Your task to perform on an android device: Open Amazon Image 0: 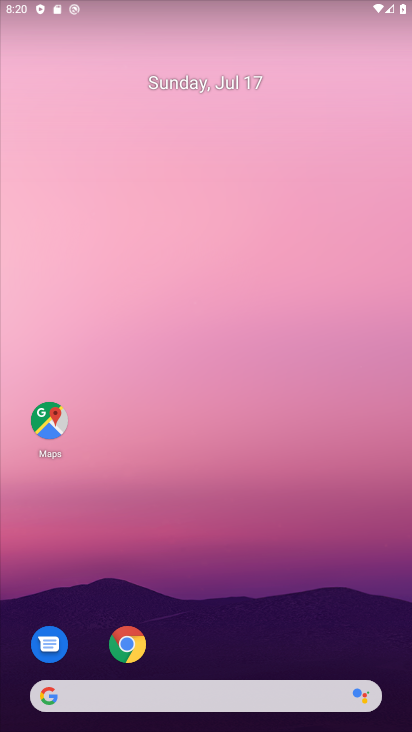
Step 0: drag from (182, 560) to (108, 110)
Your task to perform on an android device: Open Amazon Image 1: 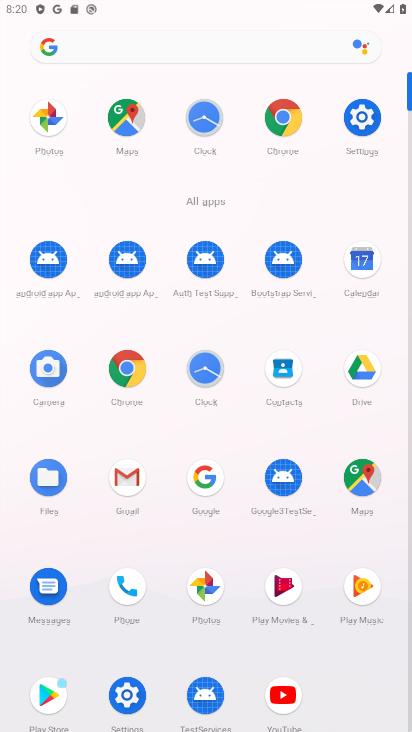
Step 1: click (277, 120)
Your task to perform on an android device: Open Amazon Image 2: 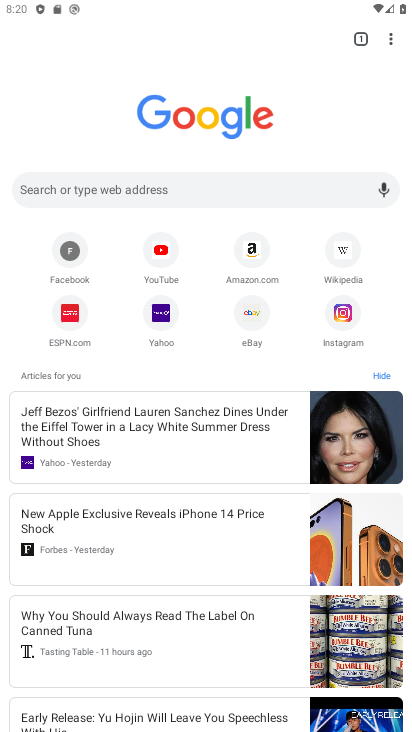
Step 2: click (252, 256)
Your task to perform on an android device: Open Amazon Image 3: 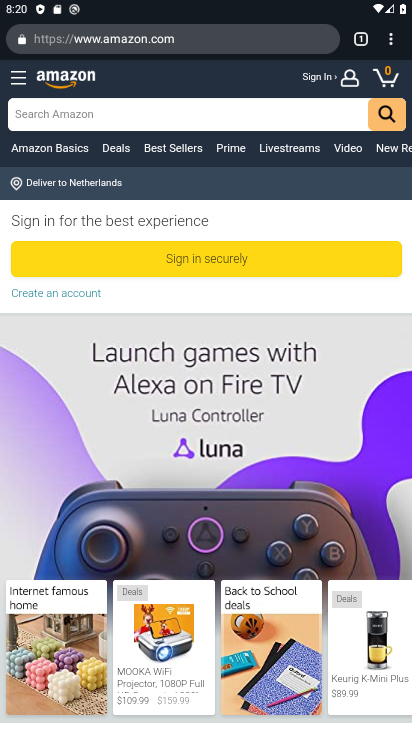
Step 3: task complete